Your task to perform on an android device: install app "Booking.com: Hotels and more" Image 0: 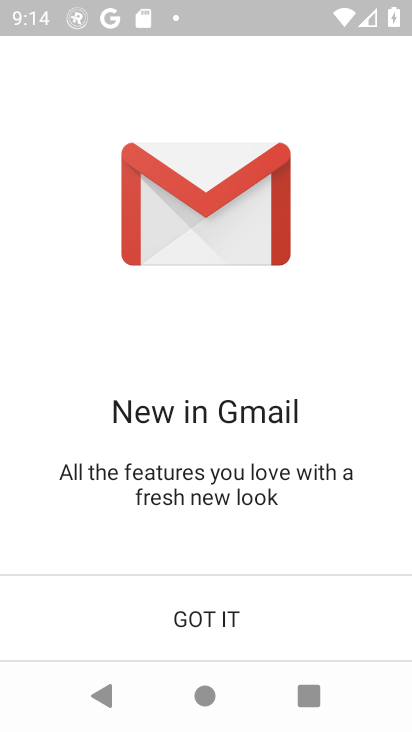
Step 0: click (209, 618)
Your task to perform on an android device: install app "Booking.com: Hotels and more" Image 1: 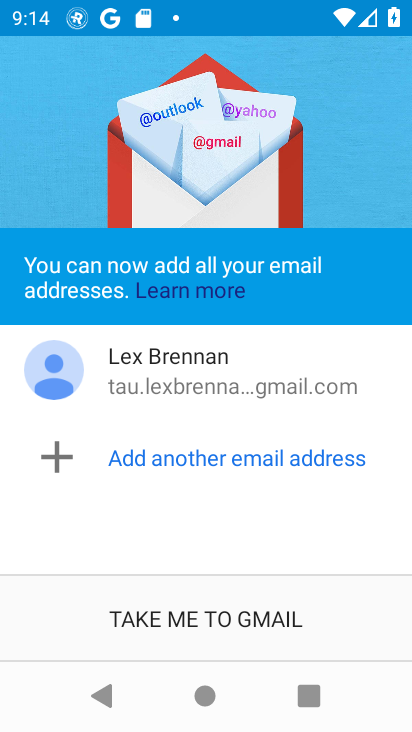
Step 1: press back button
Your task to perform on an android device: install app "Booking.com: Hotels and more" Image 2: 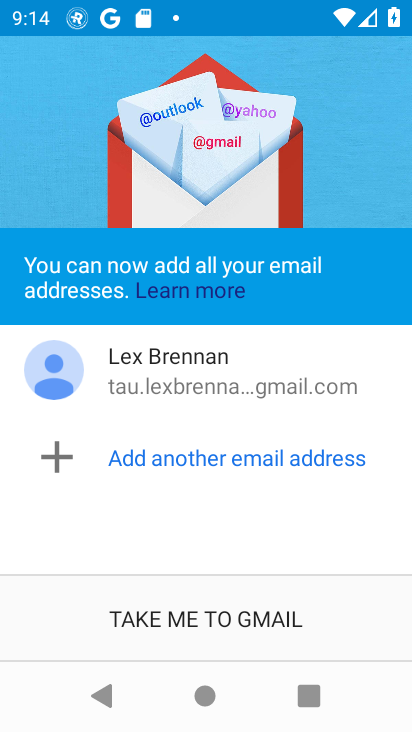
Step 2: press back button
Your task to perform on an android device: install app "Booking.com: Hotels and more" Image 3: 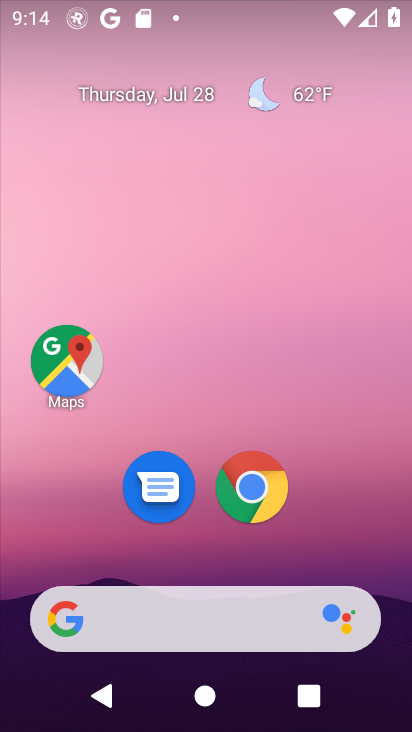
Step 3: drag from (274, 372) to (274, 224)
Your task to perform on an android device: install app "Booking.com: Hotels and more" Image 4: 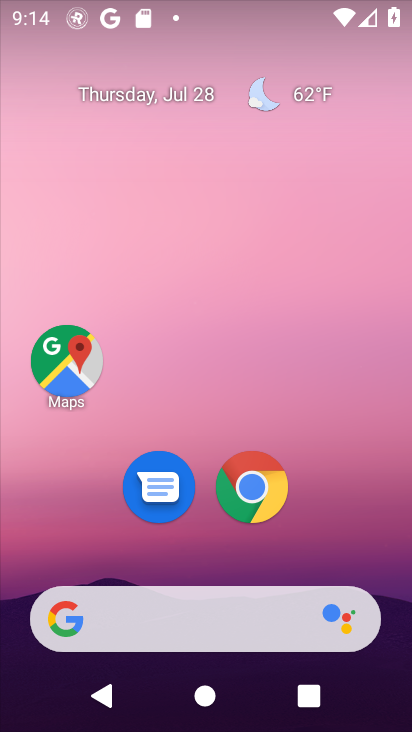
Step 4: drag from (240, 473) to (209, 127)
Your task to perform on an android device: install app "Booking.com: Hotels and more" Image 5: 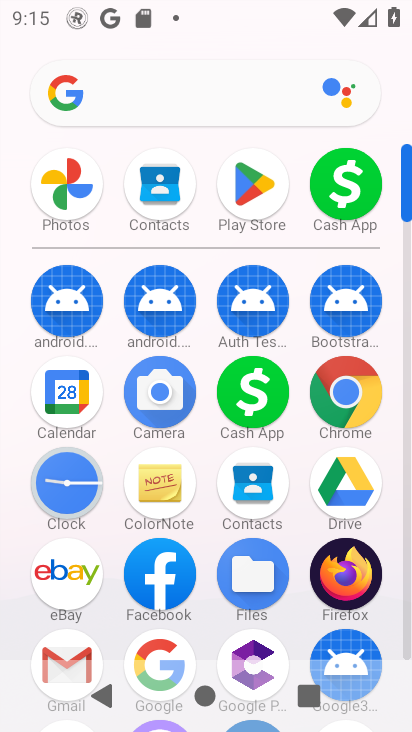
Step 5: click (242, 173)
Your task to perform on an android device: install app "Booking.com: Hotels and more" Image 6: 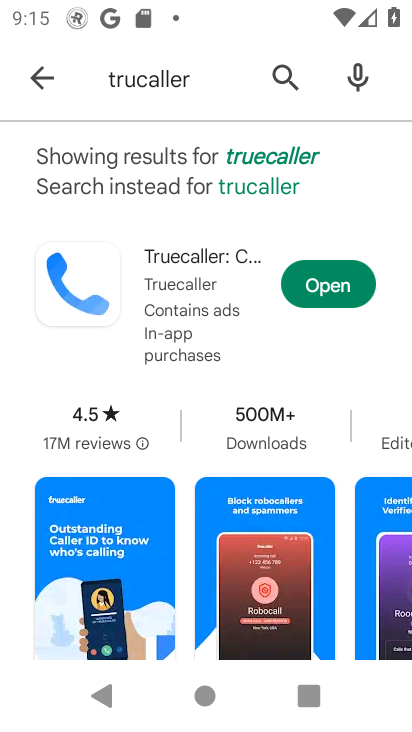
Step 6: click (38, 72)
Your task to perform on an android device: install app "Booking.com: Hotels and more" Image 7: 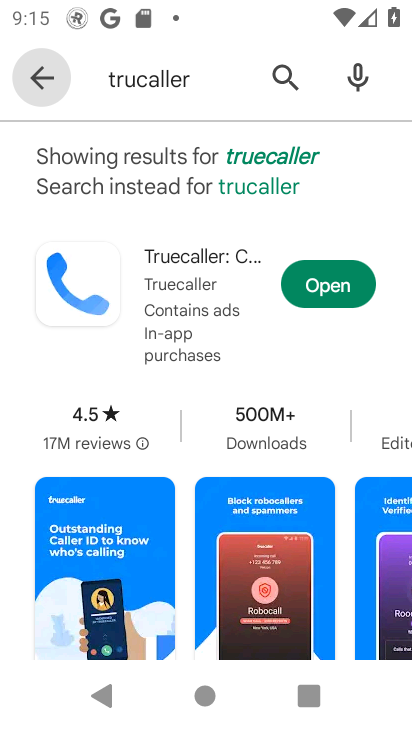
Step 7: click (38, 72)
Your task to perform on an android device: install app "Booking.com: Hotels and more" Image 8: 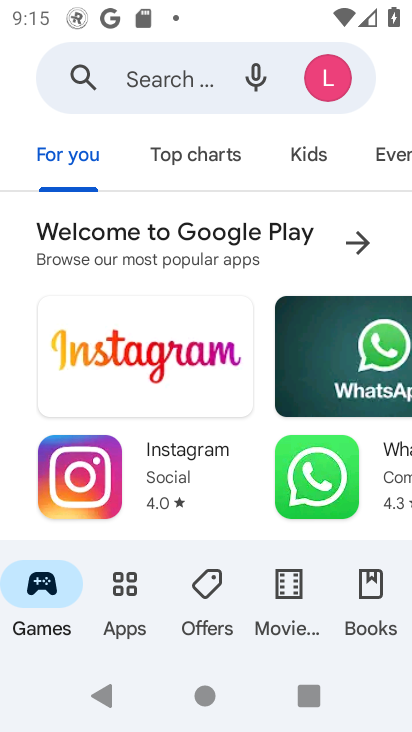
Step 8: click (157, 79)
Your task to perform on an android device: install app "Booking.com: Hotels and more" Image 9: 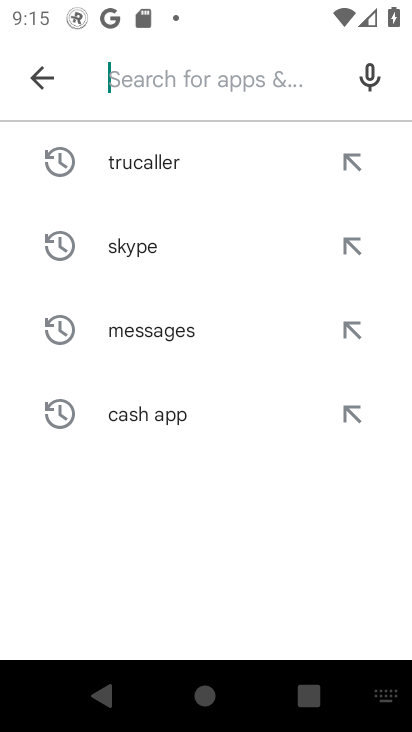
Step 9: type "Booking. com : Hotels and more"
Your task to perform on an android device: install app "Booking.com: Hotels and more" Image 10: 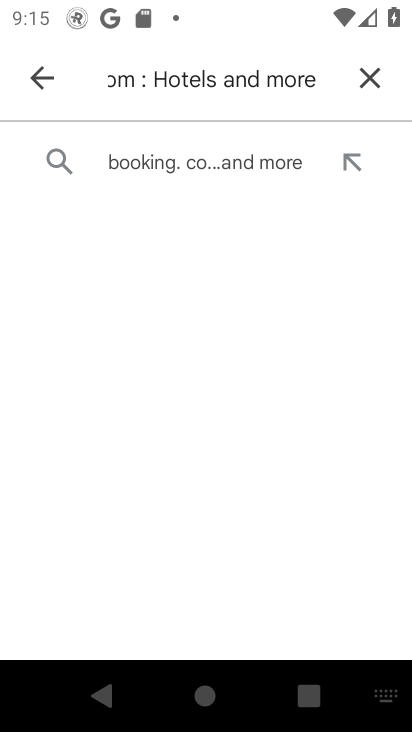
Step 10: click (299, 167)
Your task to perform on an android device: install app "Booking.com: Hotels and more" Image 11: 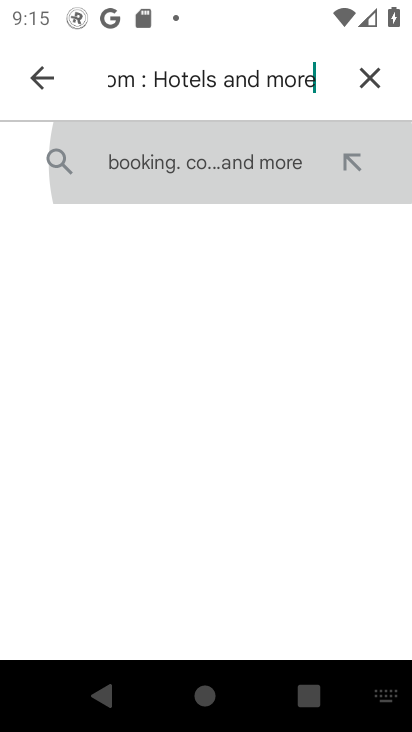
Step 11: click (301, 163)
Your task to perform on an android device: install app "Booking.com: Hotels and more" Image 12: 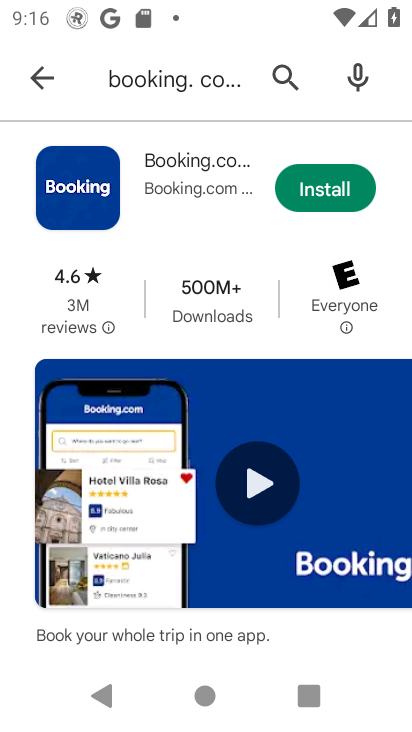
Step 12: click (323, 183)
Your task to perform on an android device: install app "Booking.com: Hotels and more" Image 13: 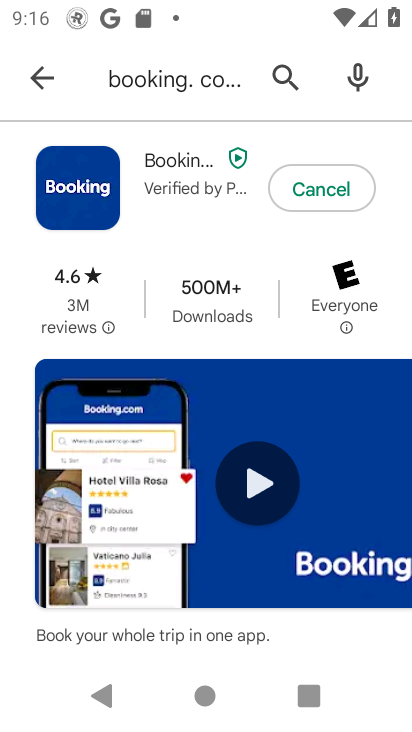
Step 13: click (323, 183)
Your task to perform on an android device: install app "Booking.com: Hotels and more" Image 14: 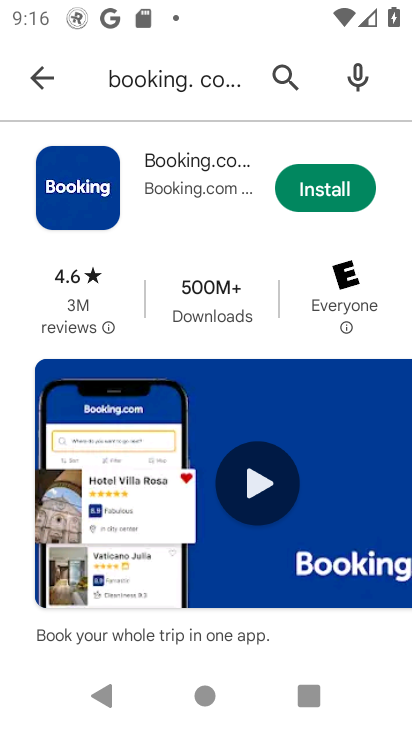
Step 14: click (343, 185)
Your task to perform on an android device: install app "Booking.com: Hotels and more" Image 15: 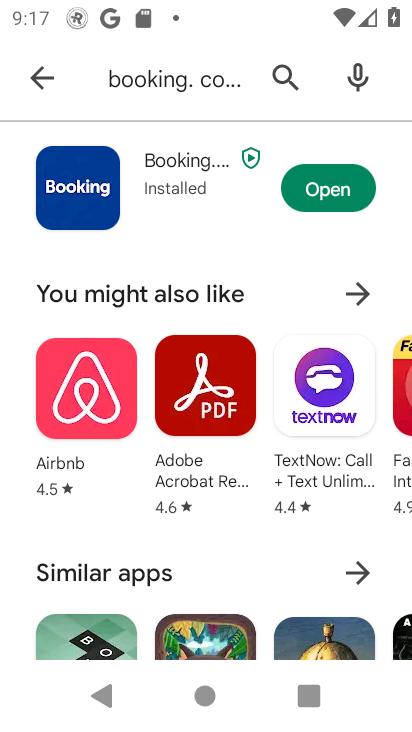
Step 15: click (335, 188)
Your task to perform on an android device: install app "Booking.com: Hotels and more" Image 16: 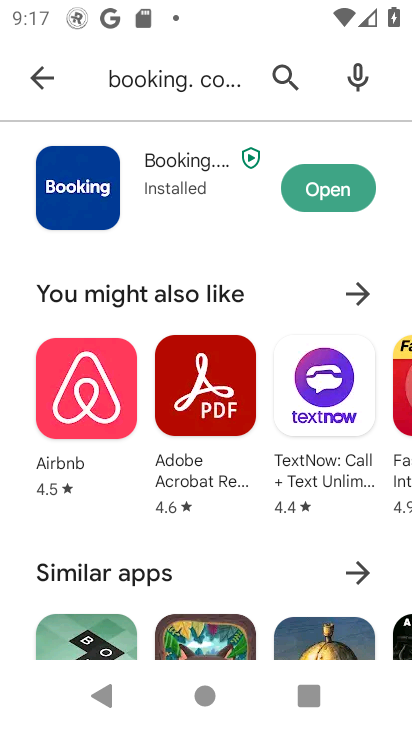
Step 16: click (336, 187)
Your task to perform on an android device: install app "Booking.com: Hotels and more" Image 17: 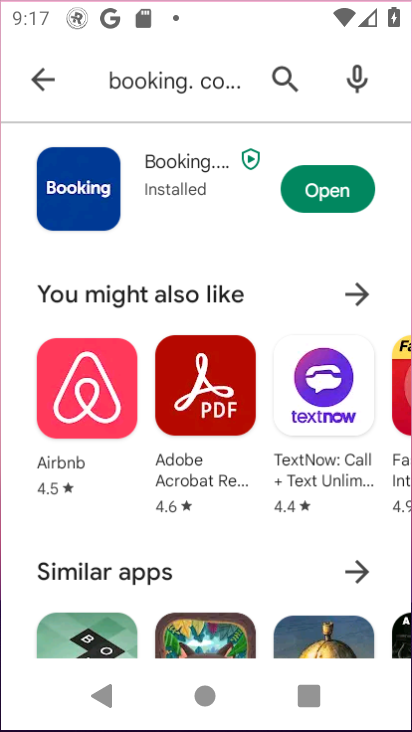
Step 17: click (336, 187)
Your task to perform on an android device: install app "Booking.com: Hotels and more" Image 18: 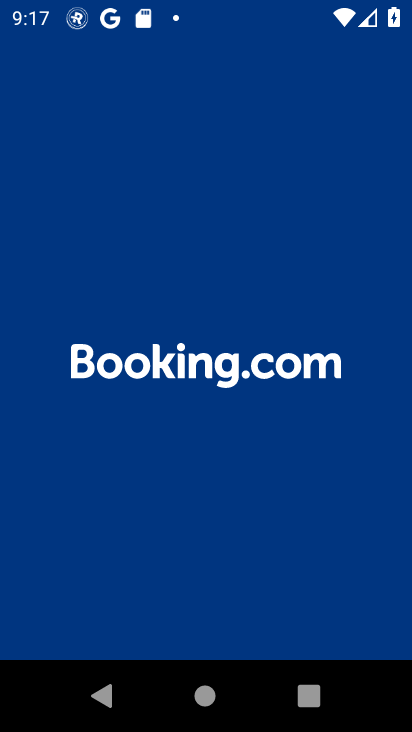
Step 18: task complete